Your task to perform on an android device: turn vacation reply on in the gmail app Image 0: 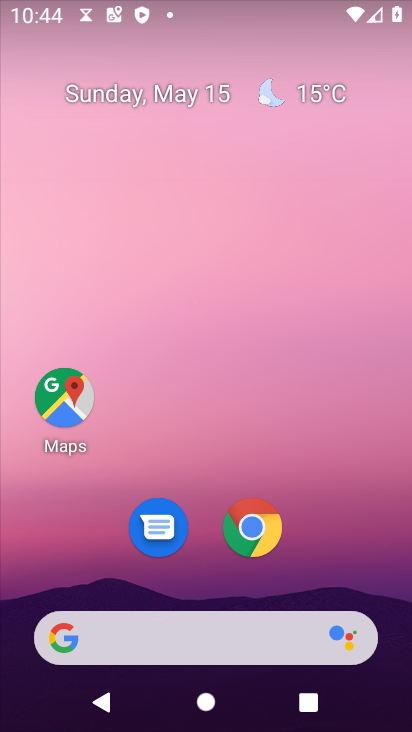
Step 0: drag from (340, 563) to (249, 178)
Your task to perform on an android device: turn vacation reply on in the gmail app Image 1: 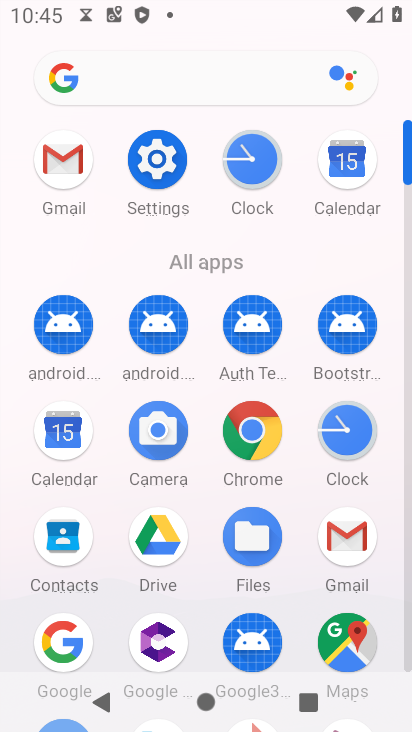
Step 1: click (62, 159)
Your task to perform on an android device: turn vacation reply on in the gmail app Image 2: 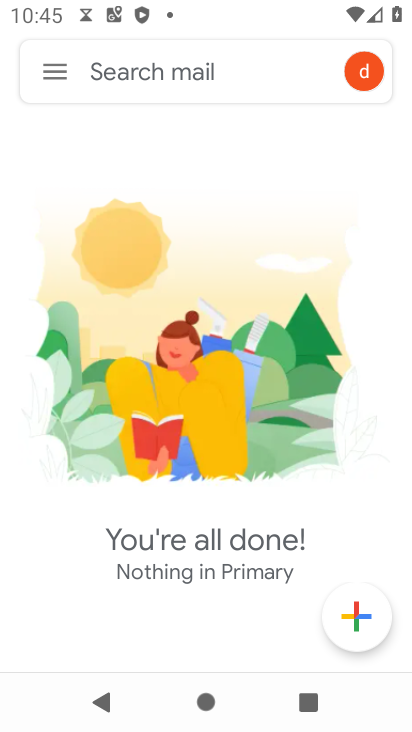
Step 2: click (55, 74)
Your task to perform on an android device: turn vacation reply on in the gmail app Image 3: 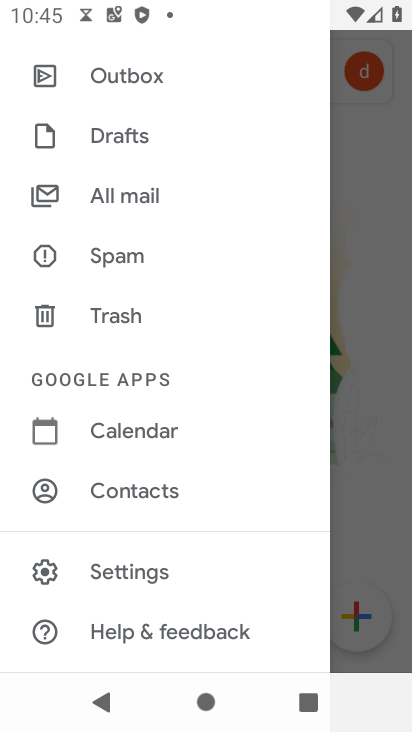
Step 3: click (132, 575)
Your task to perform on an android device: turn vacation reply on in the gmail app Image 4: 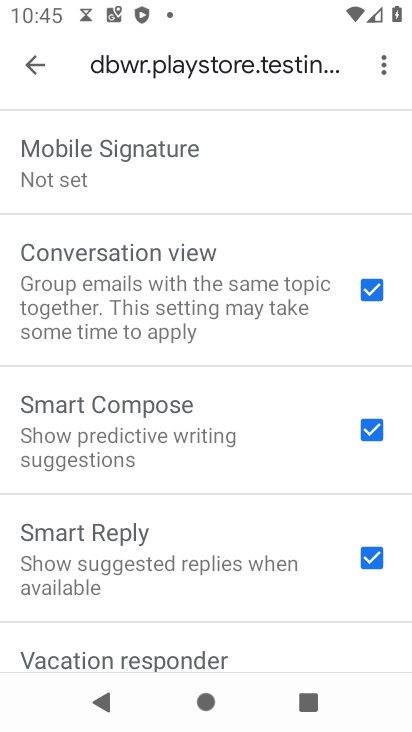
Step 4: drag from (137, 590) to (179, 463)
Your task to perform on an android device: turn vacation reply on in the gmail app Image 5: 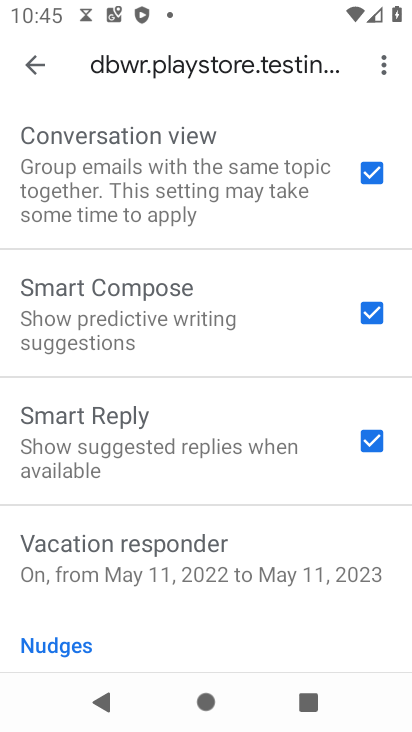
Step 5: click (144, 543)
Your task to perform on an android device: turn vacation reply on in the gmail app Image 6: 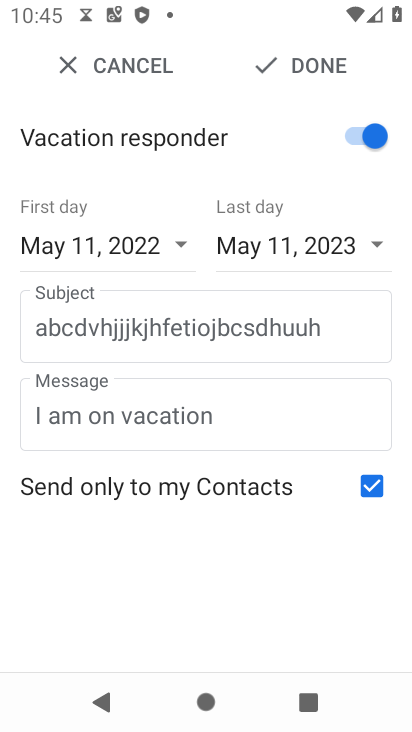
Step 6: task complete